Your task to perform on an android device: turn off improve location accuracy Image 0: 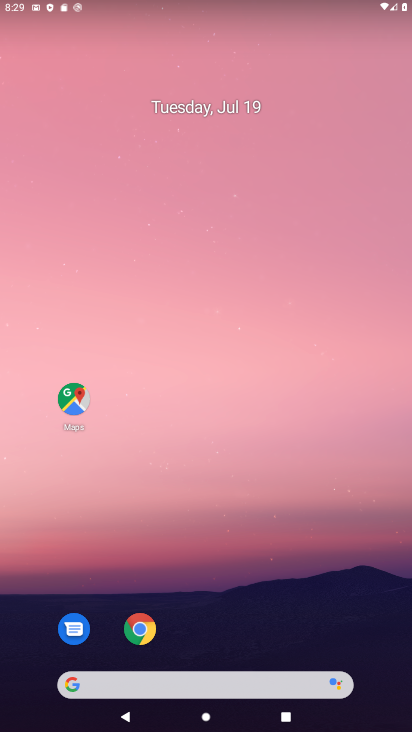
Step 0: press home button
Your task to perform on an android device: turn off improve location accuracy Image 1: 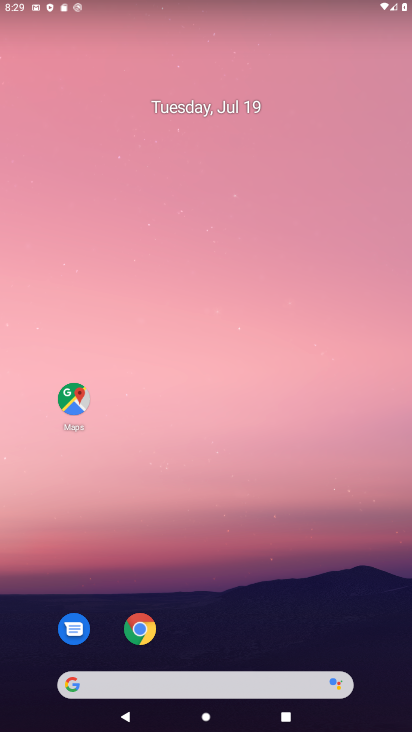
Step 1: drag from (220, 642) to (240, 0)
Your task to perform on an android device: turn off improve location accuracy Image 2: 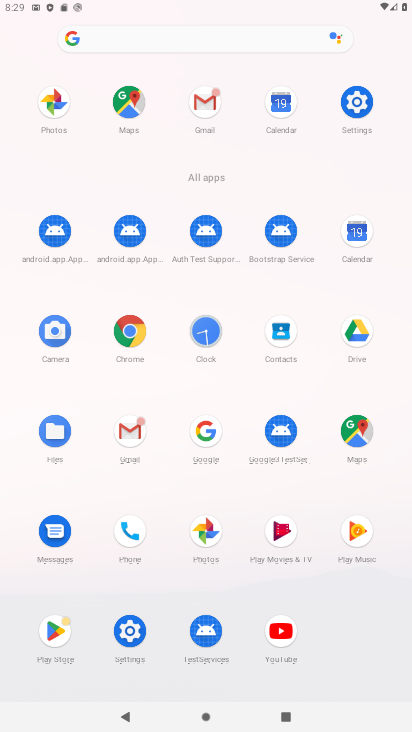
Step 2: click (355, 97)
Your task to perform on an android device: turn off improve location accuracy Image 3: 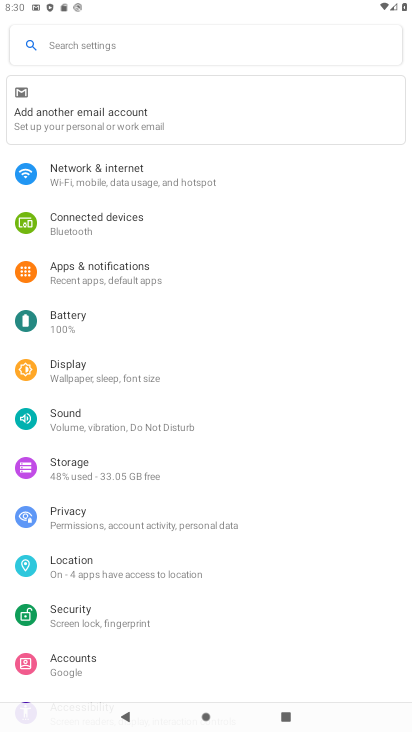
Step 3: click (98, 556)
Your task to perform on an android device: turn off improve location accuracy Image 4: 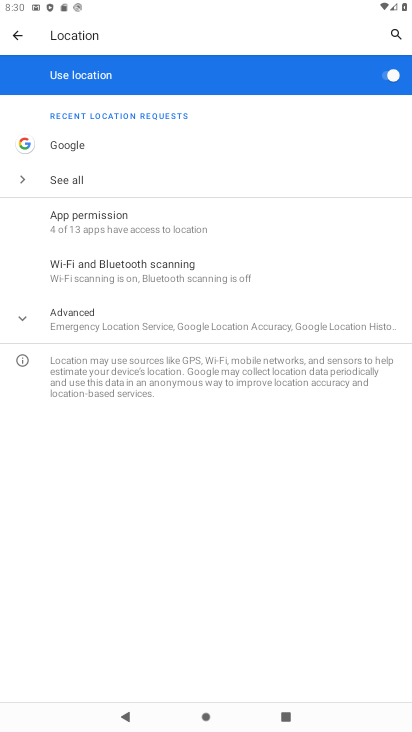
Step 4: click (25, 314)
Your task to perform on an android device: turn off improve location accuracy Image 5: 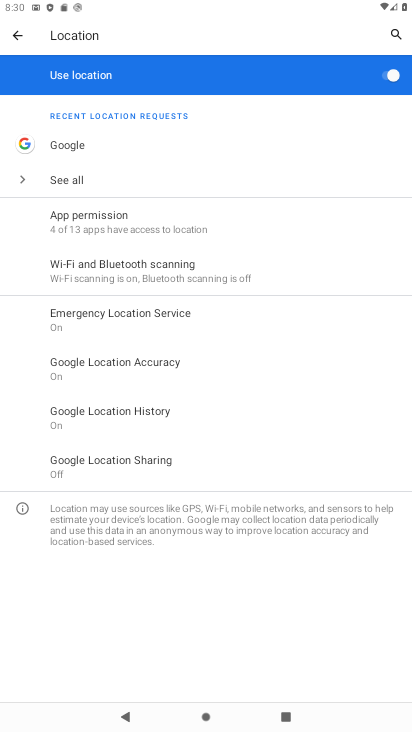
Step 5: click (114, 362)
Your task to perform on an android device: turn off improve location accuracy Image 6: 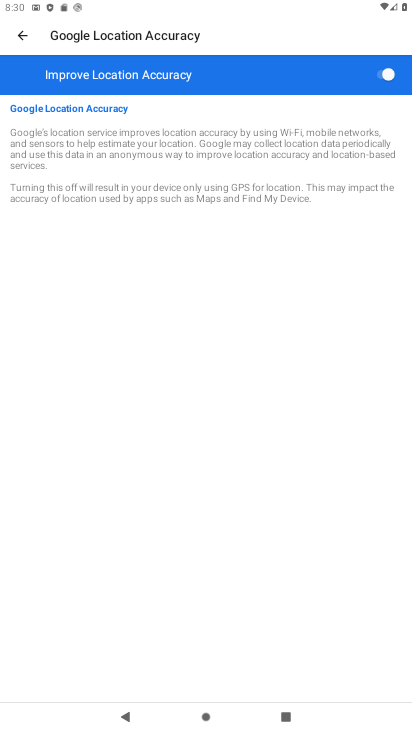
Step 6: click (385, 84)
Your task to perform on an android device: turn off improve location accuracy Image 7: 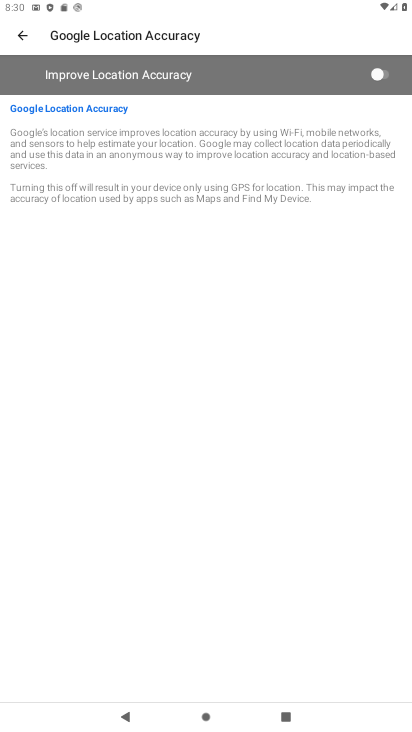
Step 7: task complete